Your task to perform on an android device: Find coffee shops on Maps Image 0: 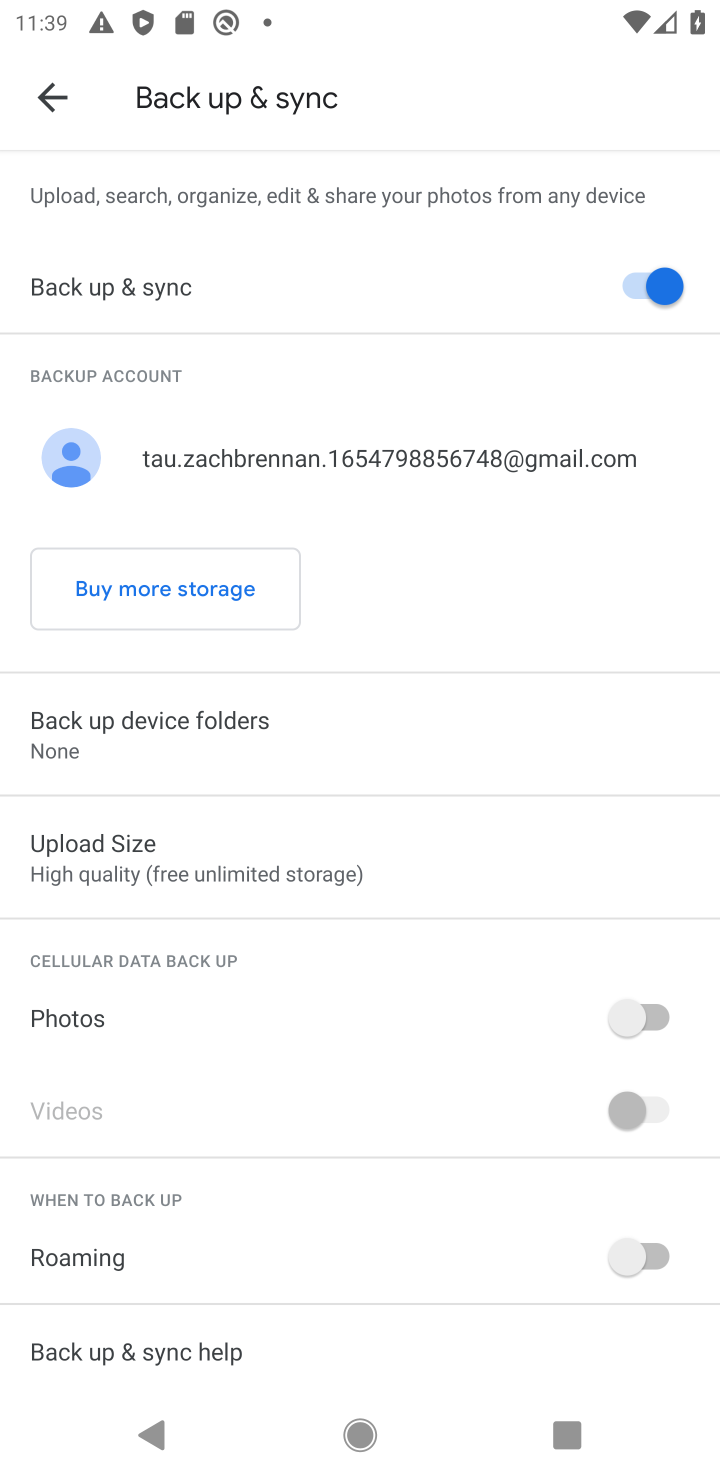
Step 0: press home button
Your task to perform on an android device: Find coffee shops on Maps Image 1: 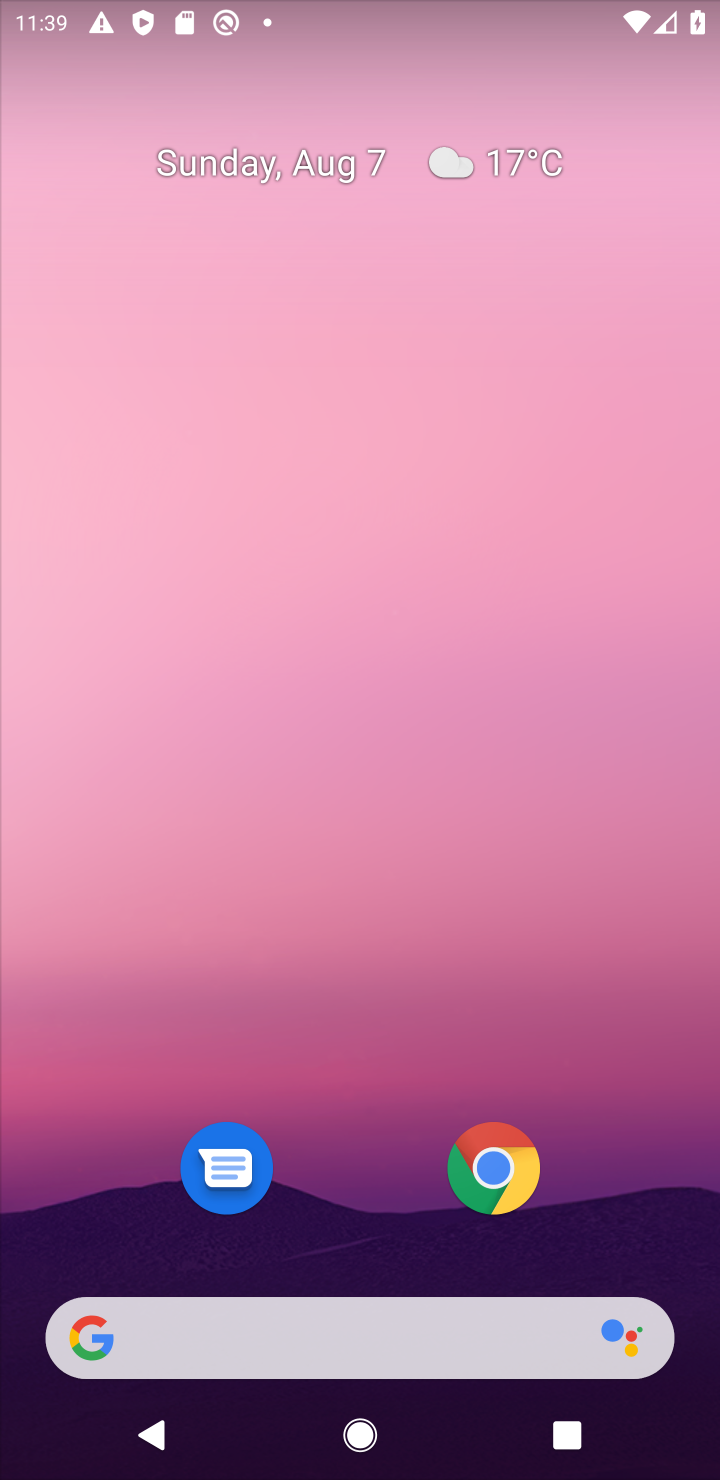
Step 1: drag from (98, 1407) to (413, 384)
Your task to perform on an android device: Find coffee shops on Maps Image 2: 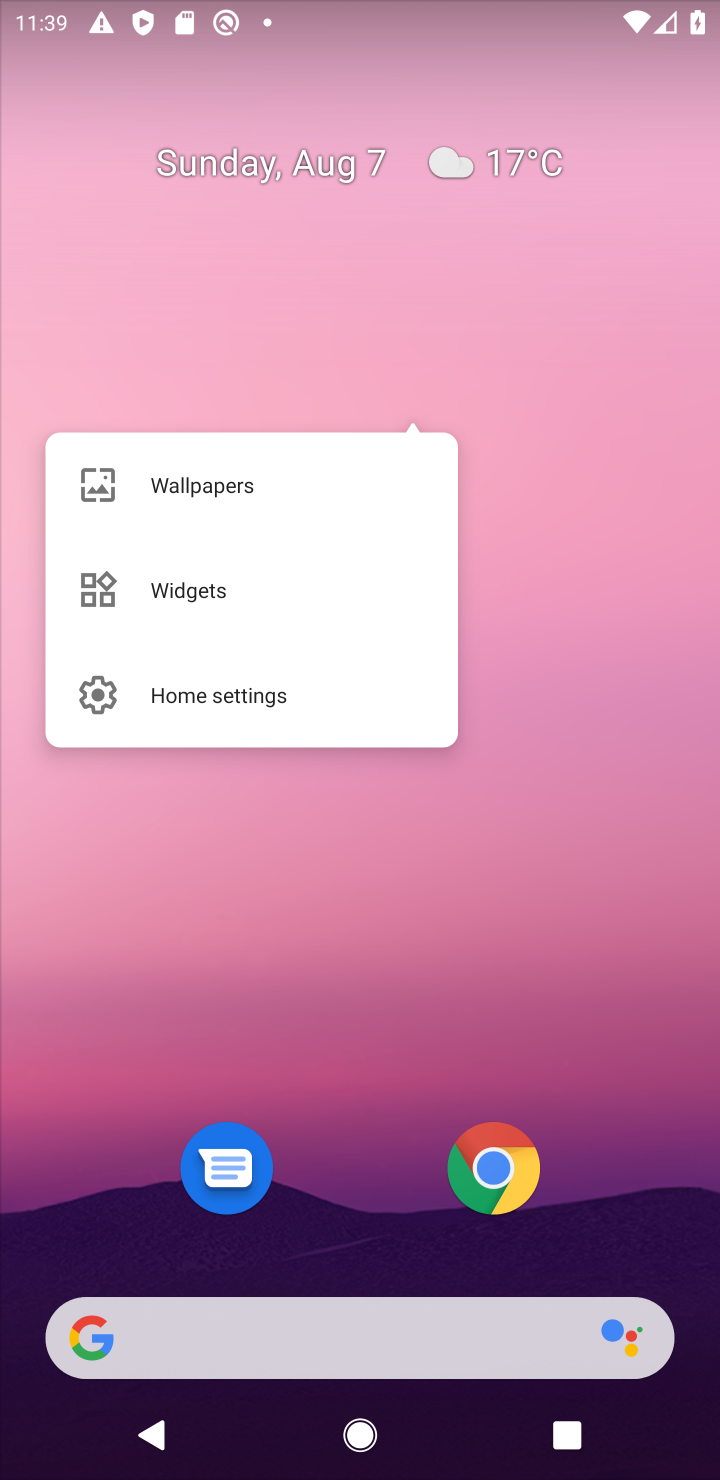
Step 2: click (15, 1416)
Your task to perform on an android device: Find coffee shops on Maps Image 3: 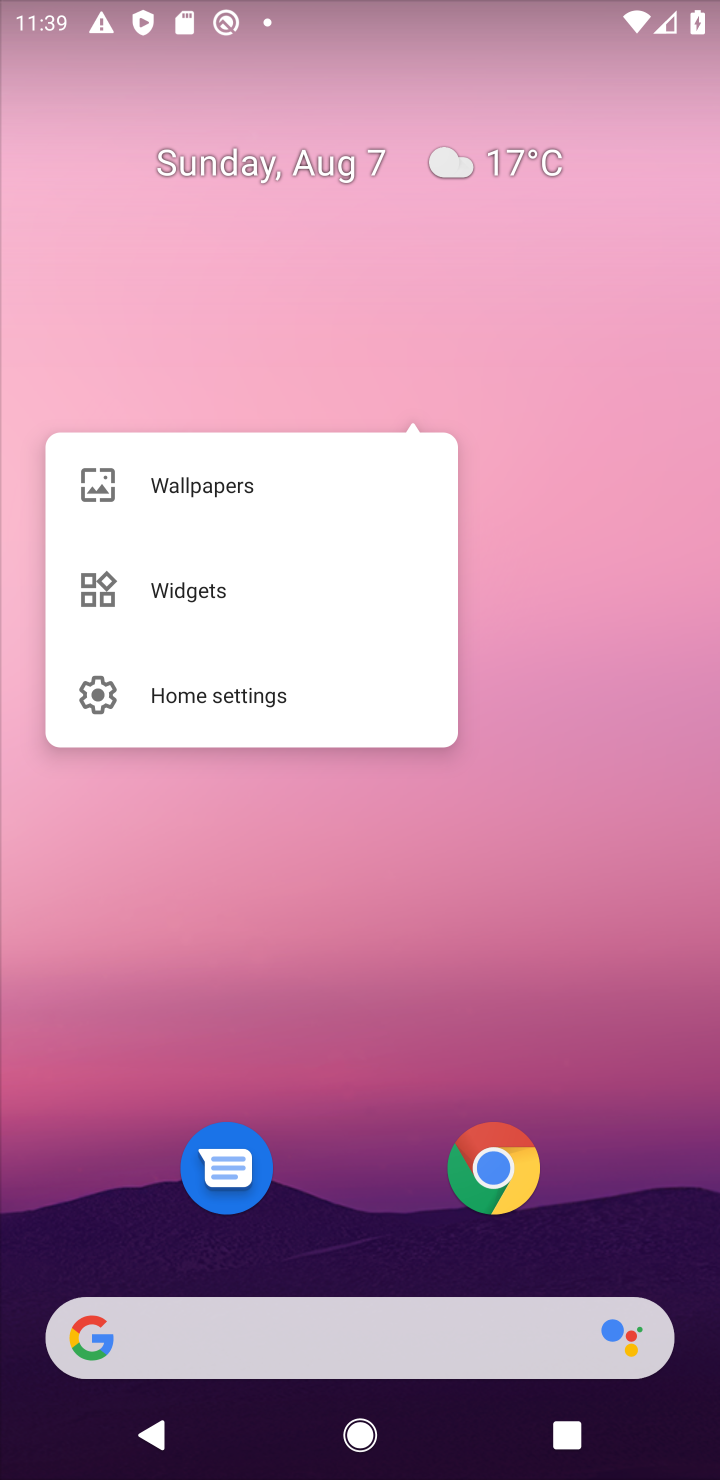
Step 3: drag from (14, 1416) to (376, 605)
Your task to perform on an android device: Find coffee shops on Maps Image 4: 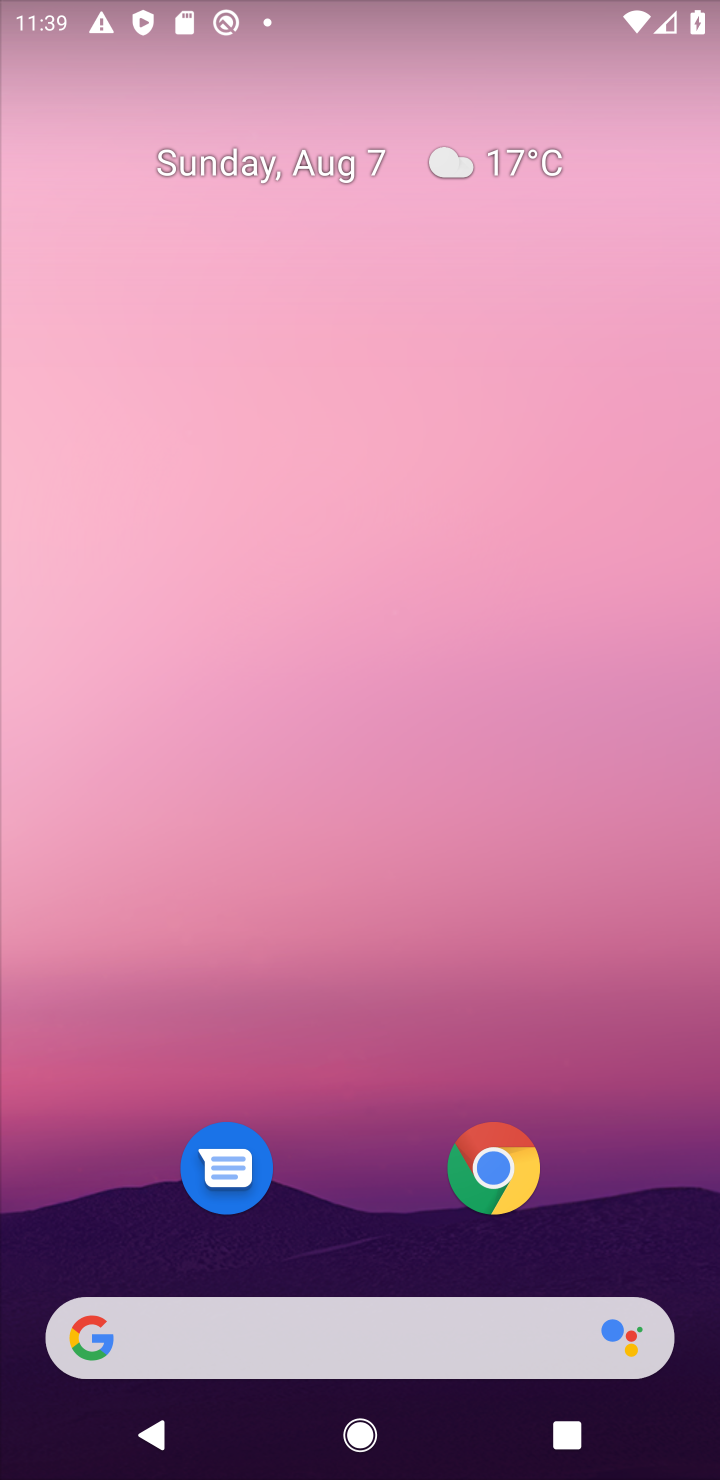
Step 4: click (30, 1429)
Your task to perform on an android device: Find coffee shops on Maps Image 5: 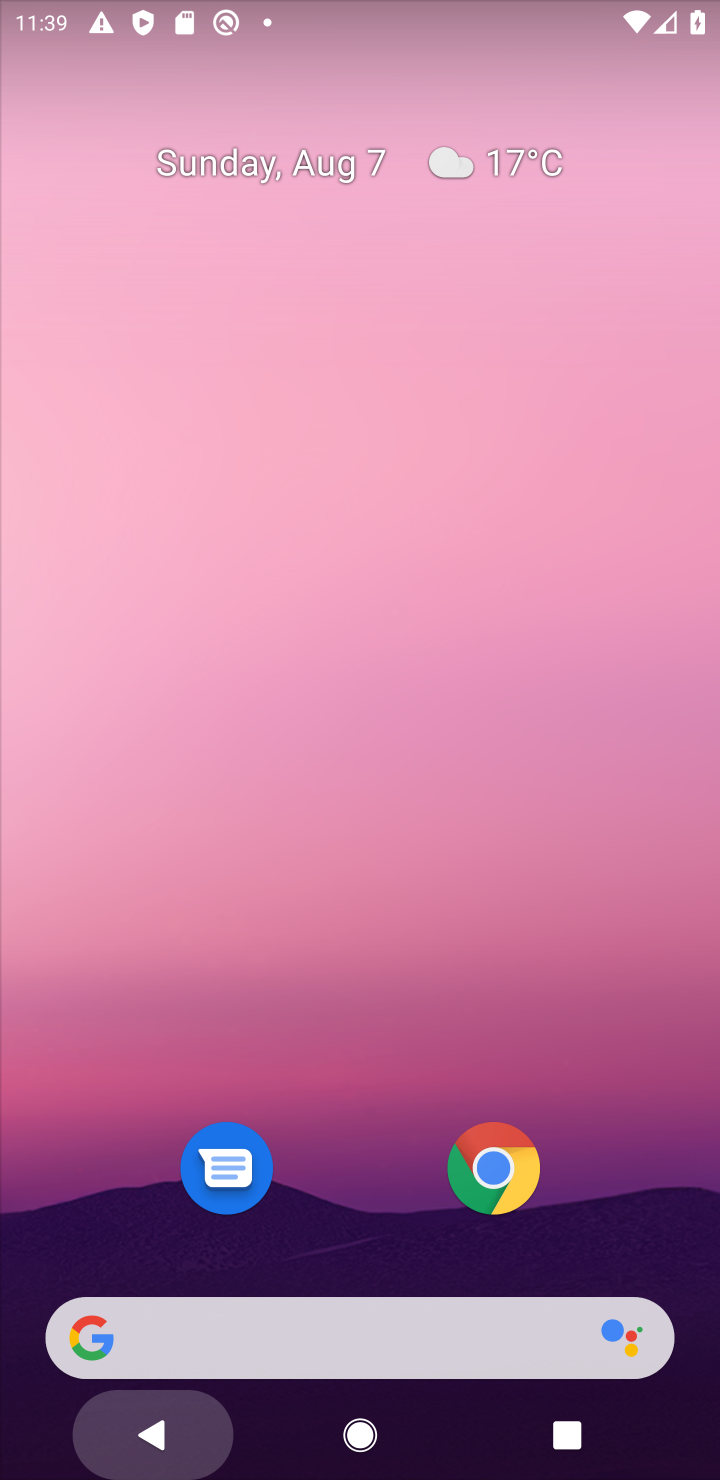
Step 5: task complete